Your task to perform on an android device: turn on priority inbox in the gmail app Image 0: 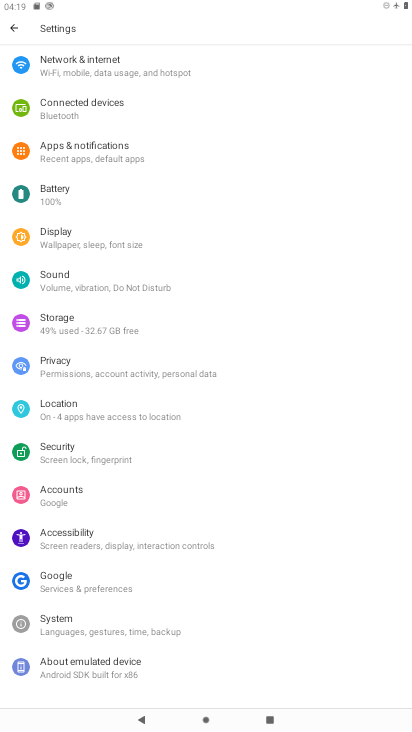
Step 0: press home button
Your task to perform on an android device: turn on priority inbox in the gmail app Image 1: 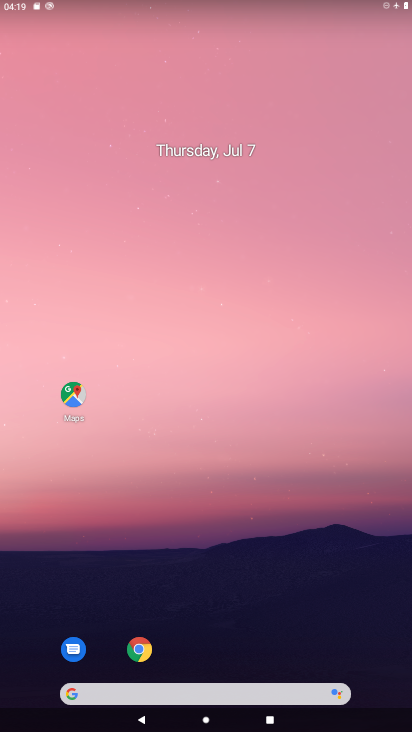
Step 1: click (309, 195)
Your task to perform on an android device: turn on priority inbox in the gmail app Image 2: 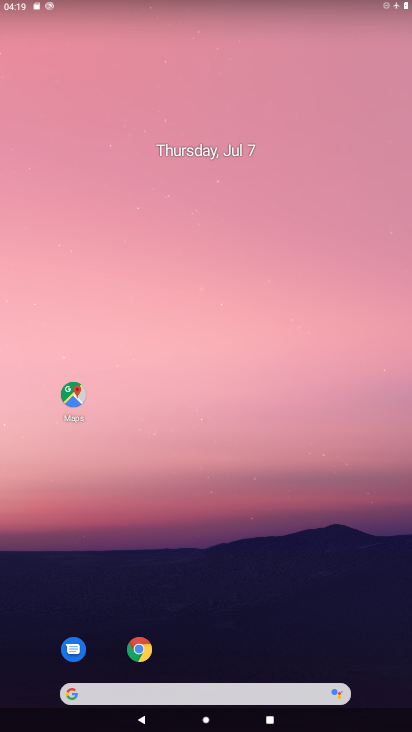
Step 2: drag from (383, 643) to (334, 173)
Your task to perform on an android device: turn on priority inbox in the gmail app Image 3: 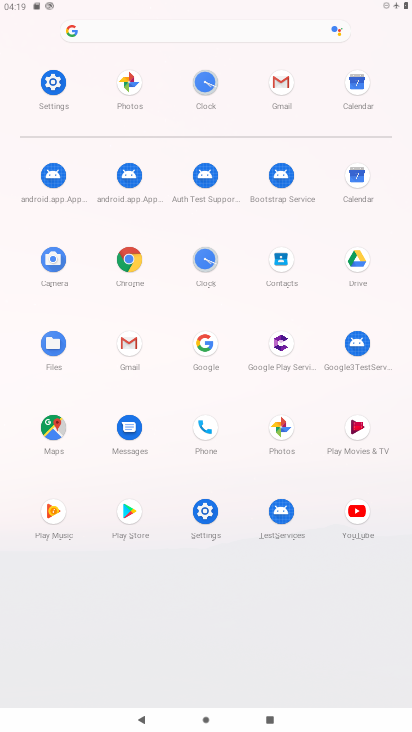
Step 3: click (128, 341)
Your task to perform on an android device: turn on priority inbox in the gmail app Image 4: 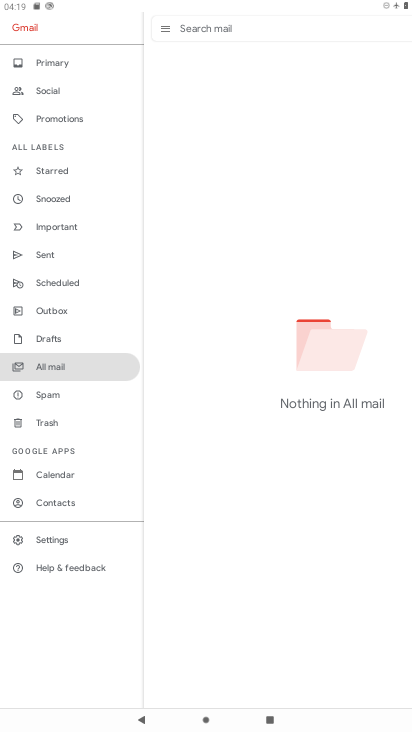
Step 4: click (54, 538)
Your task to perform on an android device: turn on priority inbox in the gmail app Image 5: 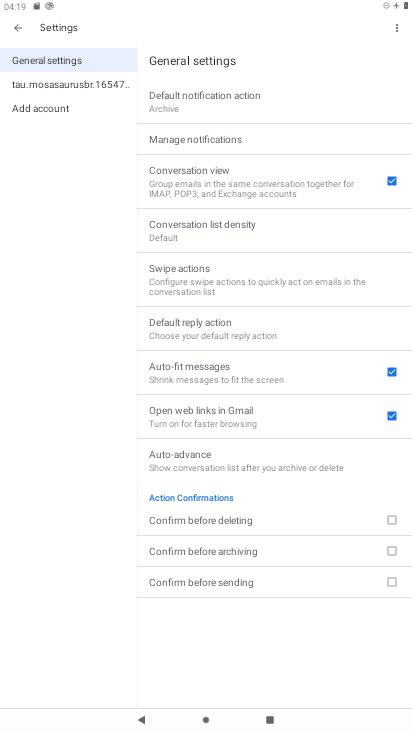
Step 5: click (63, 86)
Your task to perform on an android device: turn on priority inbox in the gmail app Image 6: 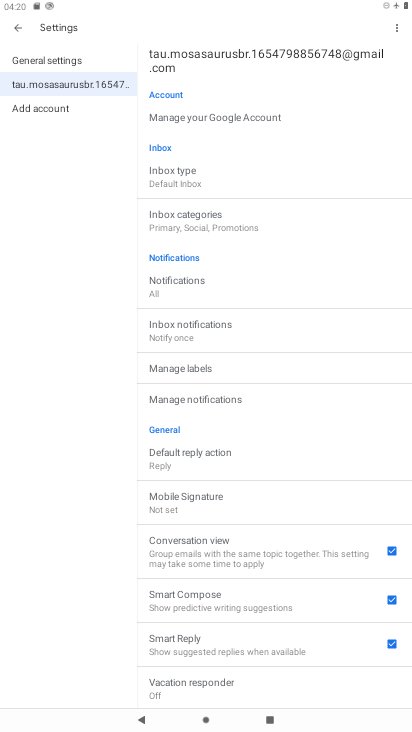
Step 6: click (169, 169)
Your task to perform on an android device: turn on priority inbox in the gmail app Image 7: 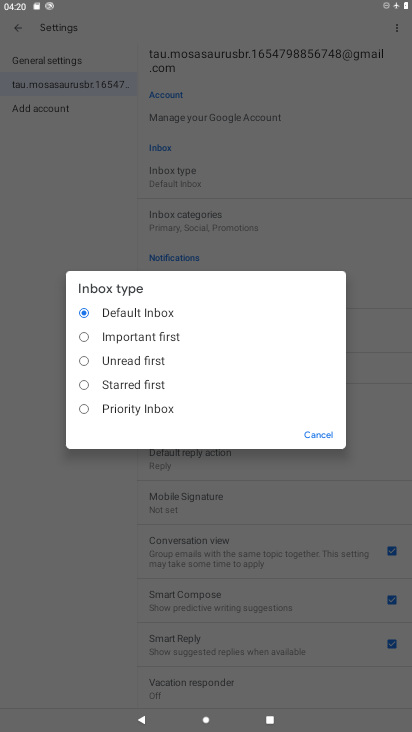
Step 7: click (109, 410)
Your task to perform on an android device: turn on priority inbox in the gmail app Image 8: 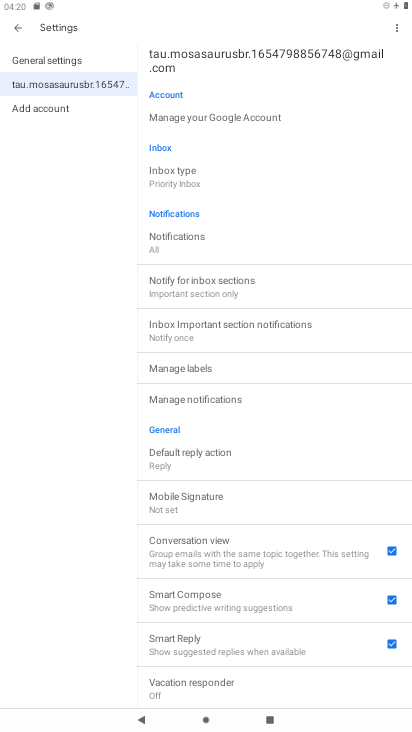
Step 8: task complete